Your task to perform on an android device: Open settings Image 0: 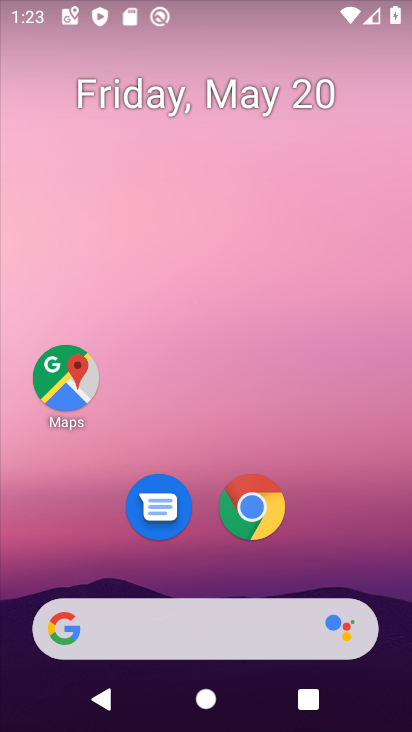
Step 0: drag from (233, 616) to (255, 189)
Your task to perform on an android device: Open settings Image 1: 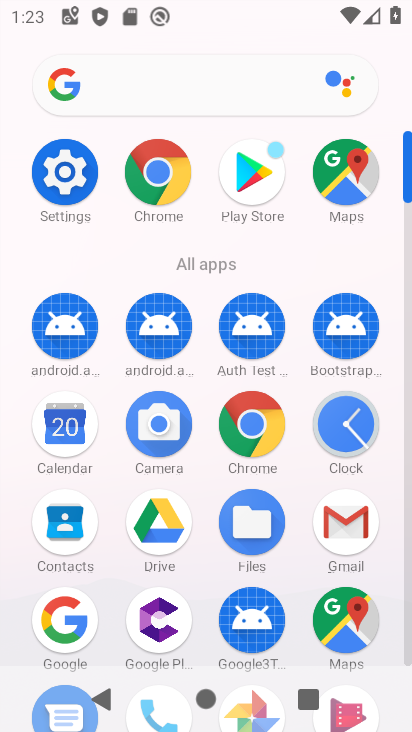
Step 1: click (70, 164)
Your task to perform on an android device: Open settings Image 2: 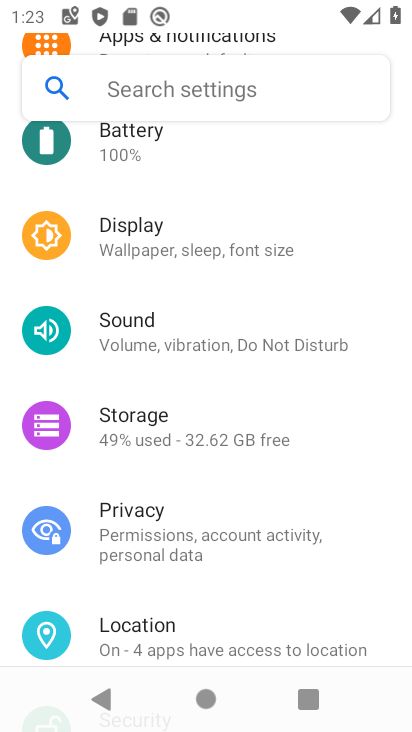
Step 2: task complete